Your task to perform on an android device: Set the phone to "Do not disturb". Image 0: 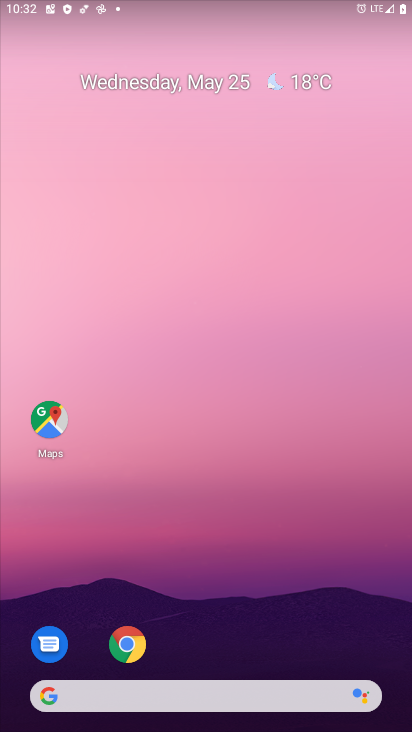
Step 0: drag from (176, 9) to (176, 465)
Your task to perform on an android device: Set the phone to "Do not disturb". Image 1: 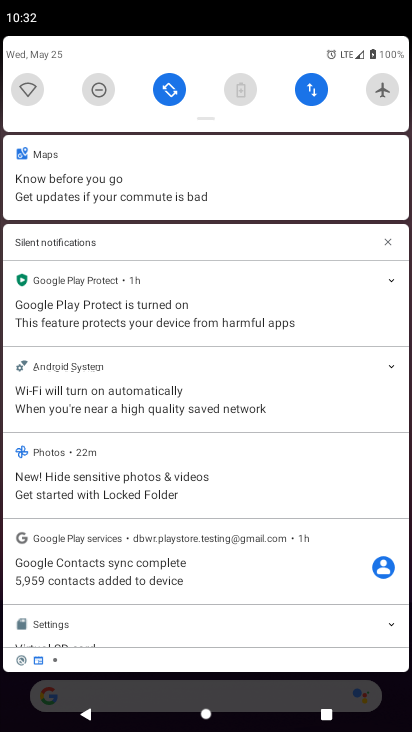
Step 1: click (104, 89)
Your task to perform on an android device: Set the phone to "Do not disturb". Image 2: 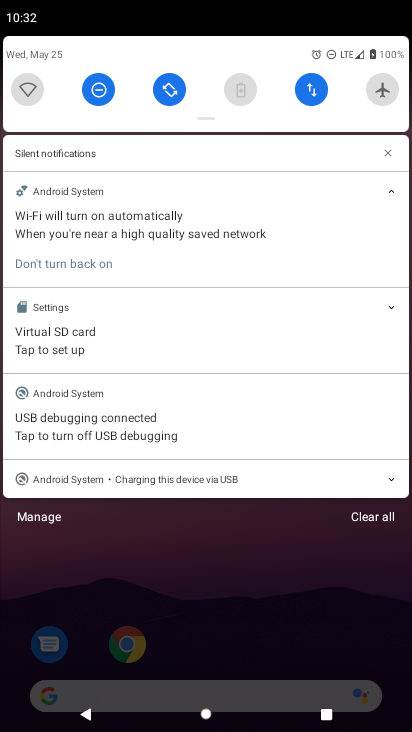
Step 2: task complete